Your task to perform on an android device: turn on the 12-hour format for clock Image 0: 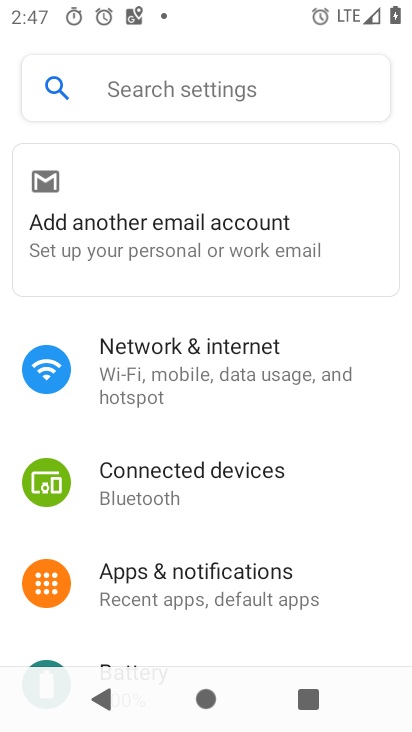
Step 0: press home button
Your task to perform on an android device: turn on the 12-hour format for clock Image 1: 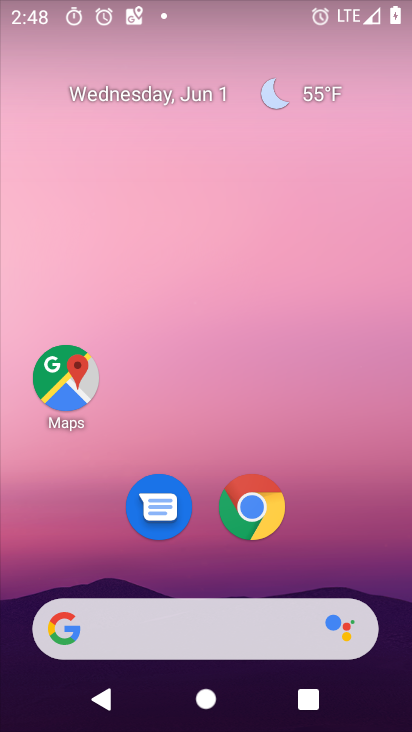
Step 1: drag from (340, 598) to (329, 12)
Your task to perform on an android device: turn on the 12-hour format for clock Image 2: 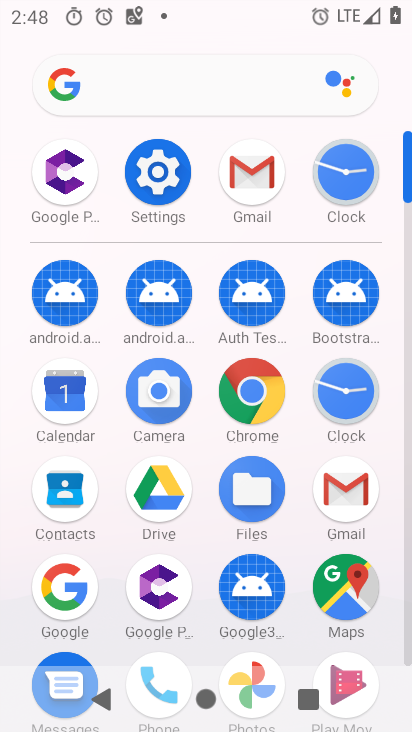
Step 2: click (338, 182)
Your task to perform on an android device: turn on the 12-hour format for clock Image 3: 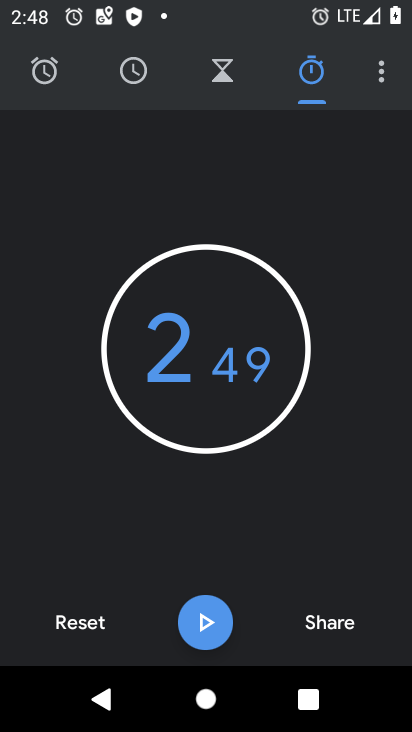
Step 3: click (379, 79)
Your task to perform on an android device: turn on the 12-hour format for clock Image 4: 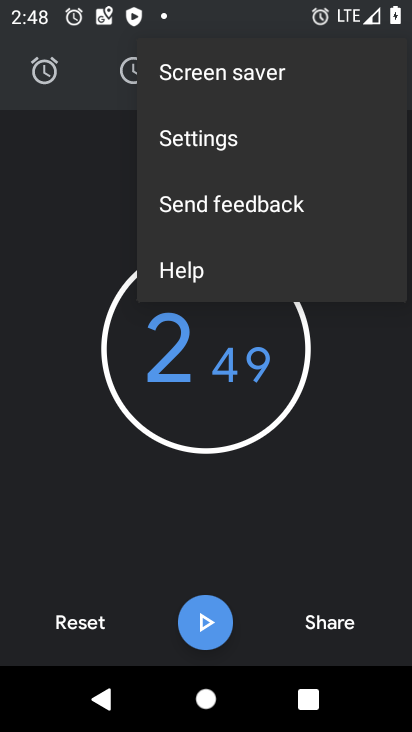
Step 4: click (190, 141)
Your task to perform on an android device: turn on the 12-hour format for clock Image 5: 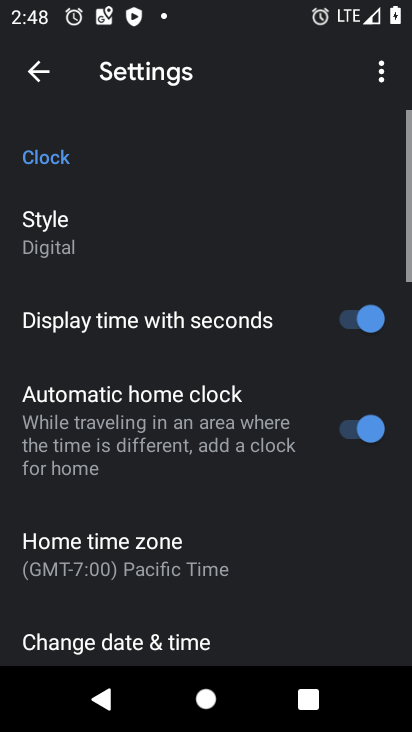
Step 5: drag from (217, 532) to (213, 167)
Your task to perform on an android device: turn on the 12-hour format for clock Image 6: 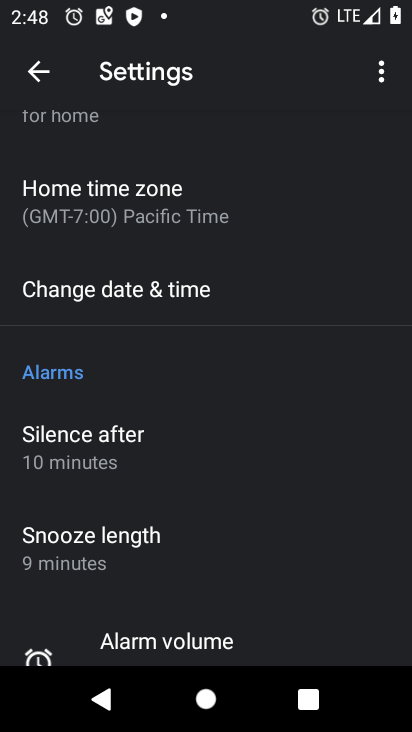
Step 6: click (115, 301)
Your task to perform on an android device: turn on the 12-hour format for clock Image 7: 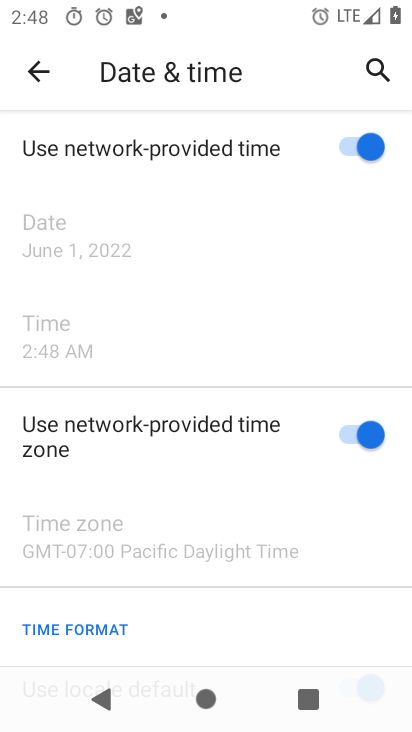
Step 7: task complete